Your task to perform on an android device: Open maps Image 0: 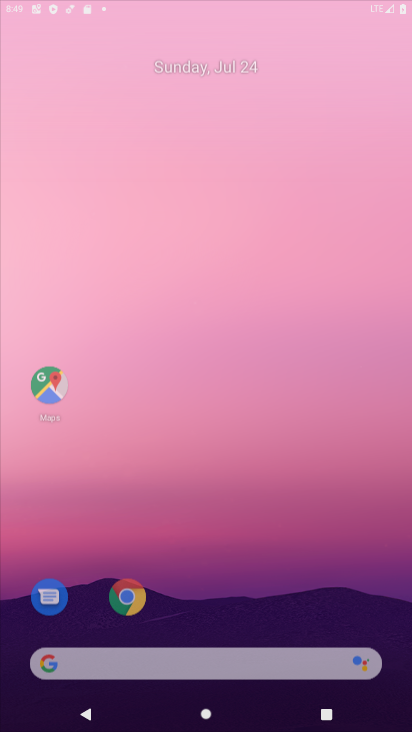
Step 0: click (406, 272)
Your task to perform on an android device: Open maps Image 1: 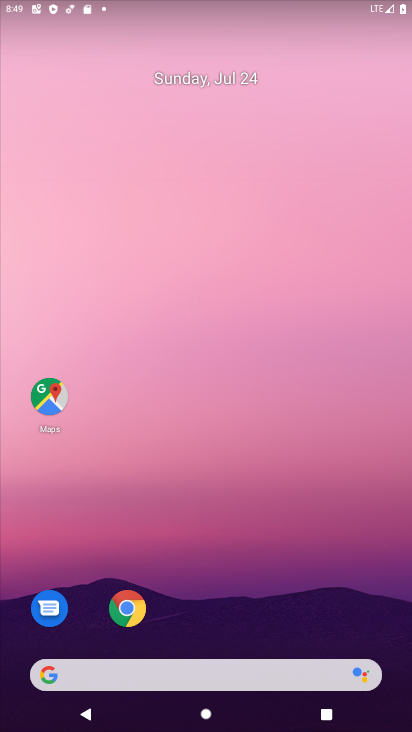
Step 1: click (44, 410)
Your task to perform on an android device: Open maps Image 2: 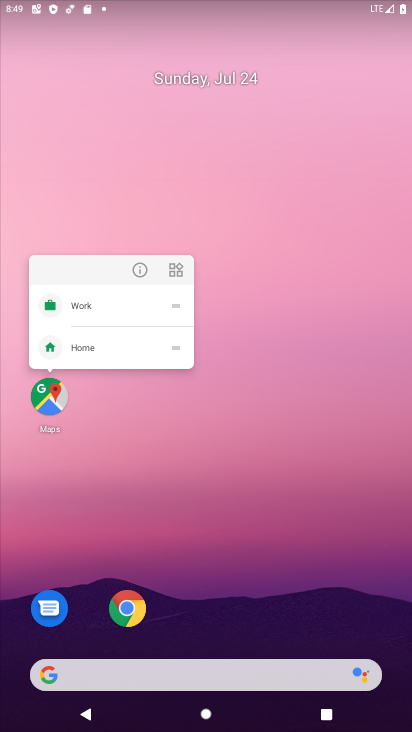
Step 2: click (59, 418)
Your task to perform on an android device: Open maps Image 3: 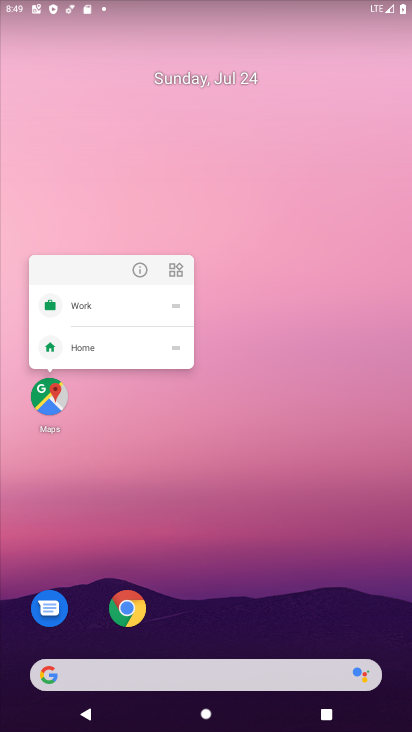
Step 3: click (54, 402)
Your task to perform on an android device: Open maps Image 4: 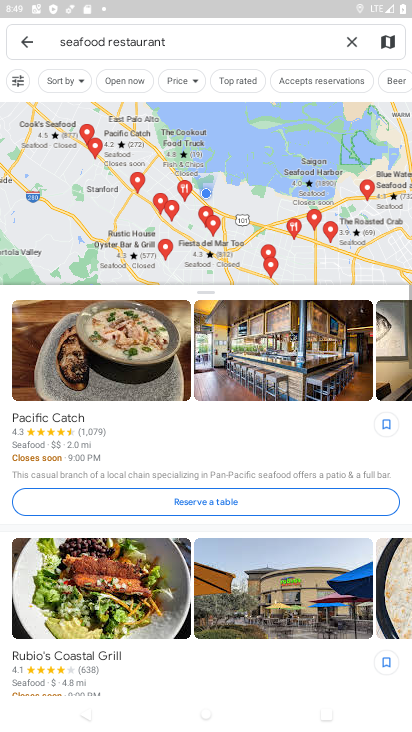
Step 4: click (27, 39)
Your task to perform on an android device: Open maps Image 5: 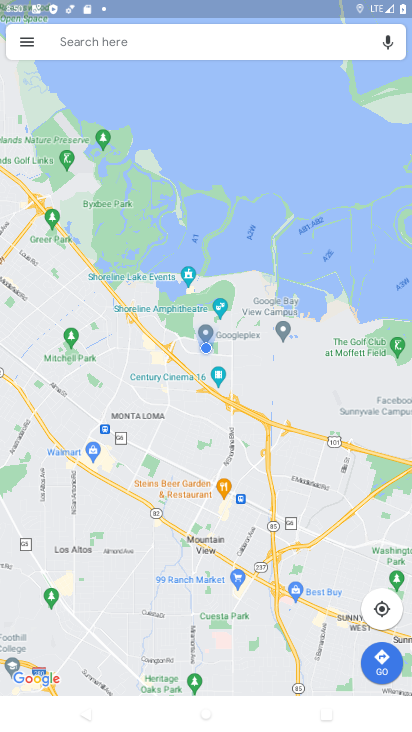
Step 5: task complete